Your task to perform on an android device: turn on airplane mode Image 0: 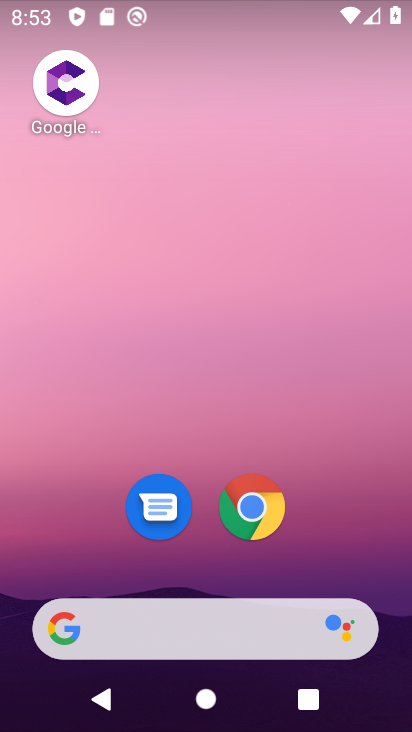
Step 0: drag from (274, 611) to (267, 22)
Your task to perform on an android device: turn on airplane mode Image 1: 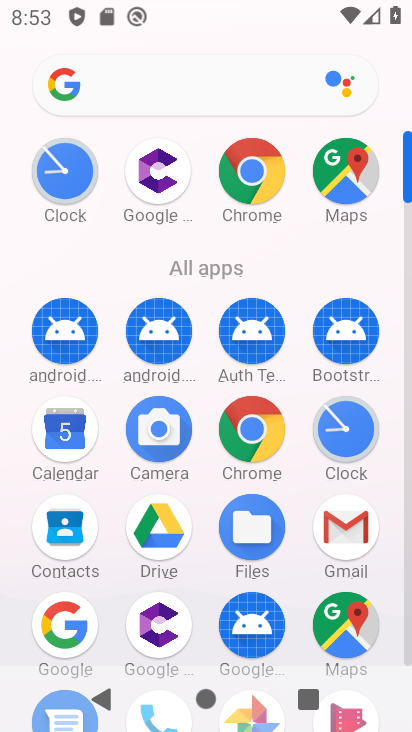
Step 1: drag from (306, 11) to (251, 438)
Your task to perform on an android device: turn on airplane mode Image 2: 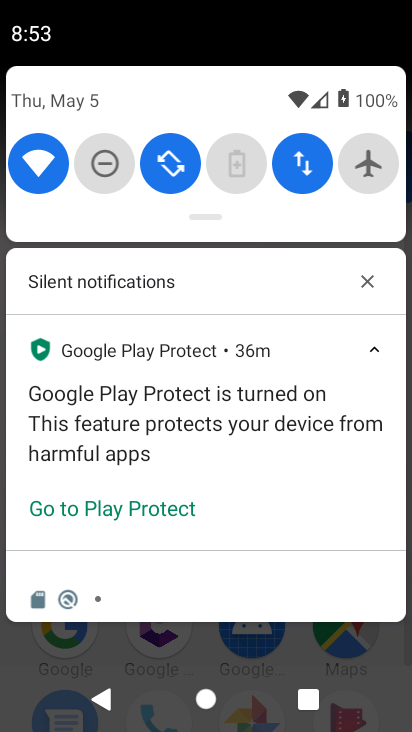
Step 2: drag from (250, 220) to (230, 567)
Your task to perform on an android device: turn on airplane mode Image 3: 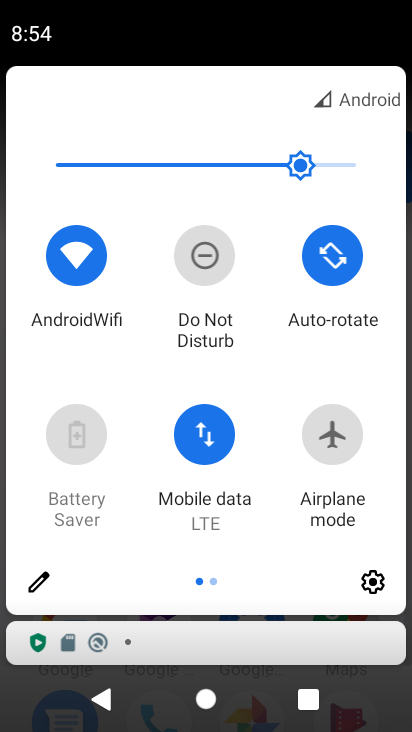
Step 3: click (344, 444)
Your task to perform on an android device: turn on airplane mode Image 4: 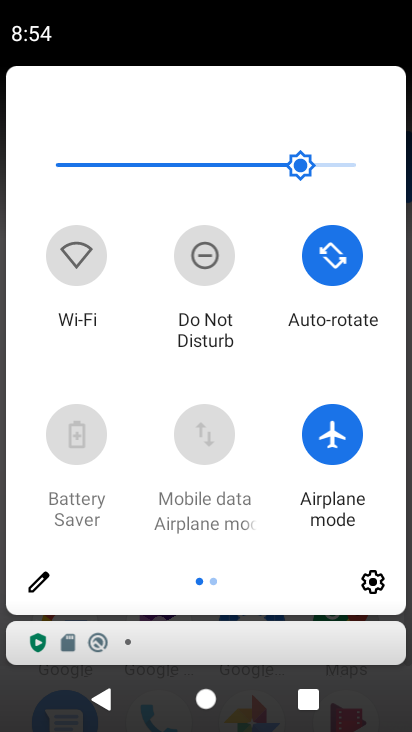
Step 4: task complete